Your task to perform on an android device: Go to calendar. Show me events next week Image 0: 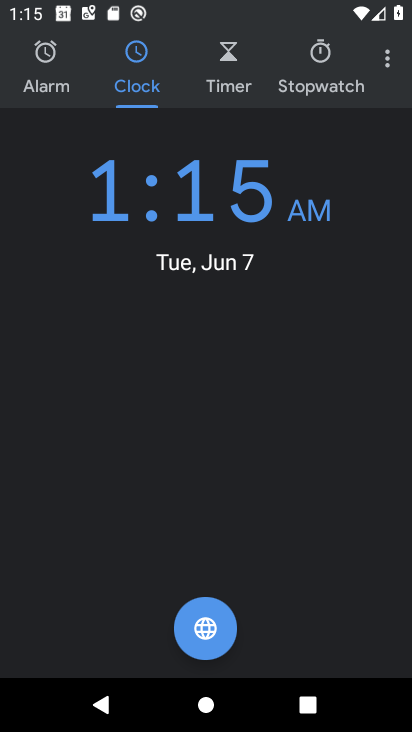
Step 0: press home button
Your task to perform on an android device: Go to calendar. Show me events next week Image 1: 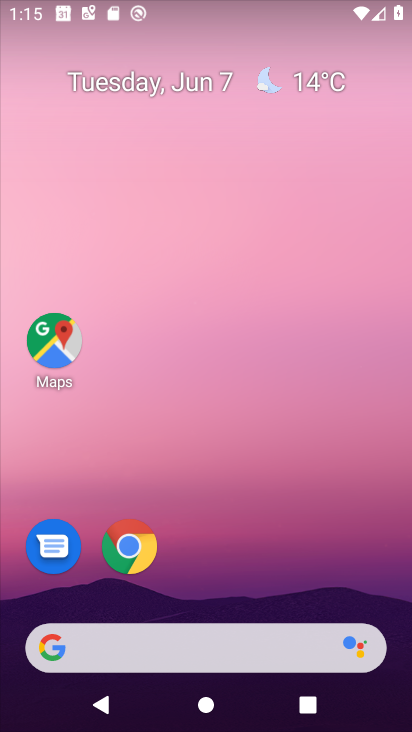
Step 1: drag from (291, 599) to (257, 160)
Your task to perform on an android device: Go to calendar. Show me events next week Image 2: 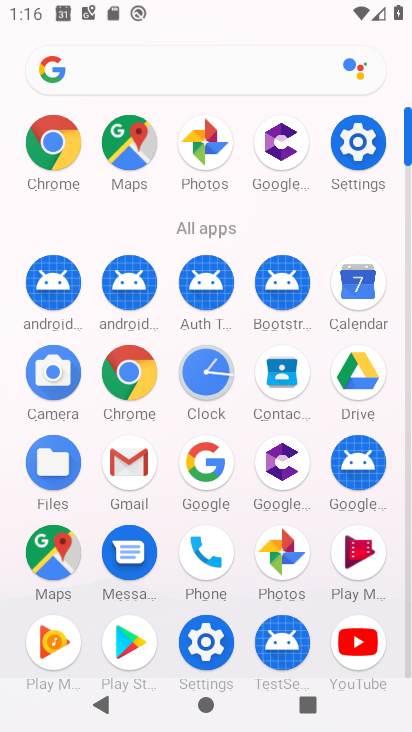
Step 2: click (345, 292)
Your task to perform on an android device: Go to calendar. Show me events next week Image 3: 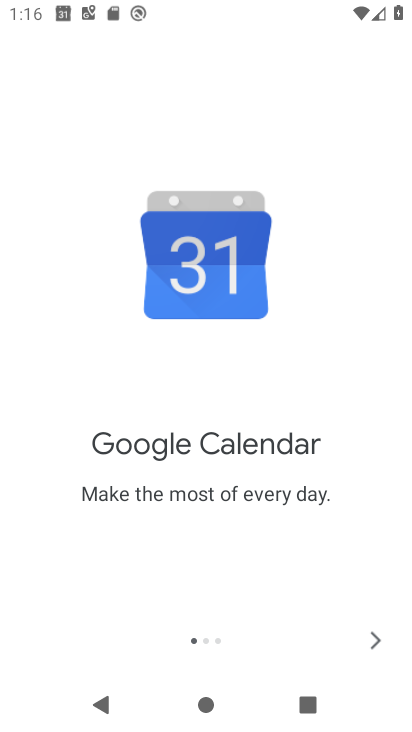
Step 3: click (378, 635)
Your task to perform on an android device: Go to calendar. Show me events next week Image 4: 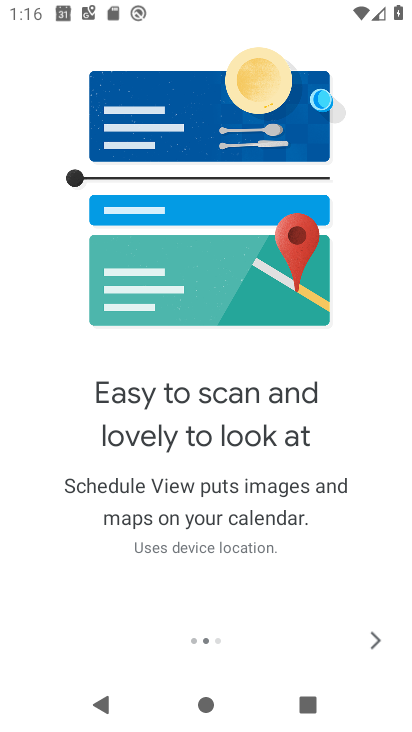
Step 4: click (378, 635)
Your task to perform on an android device: Go to calendar. Show me events next week Image 5: 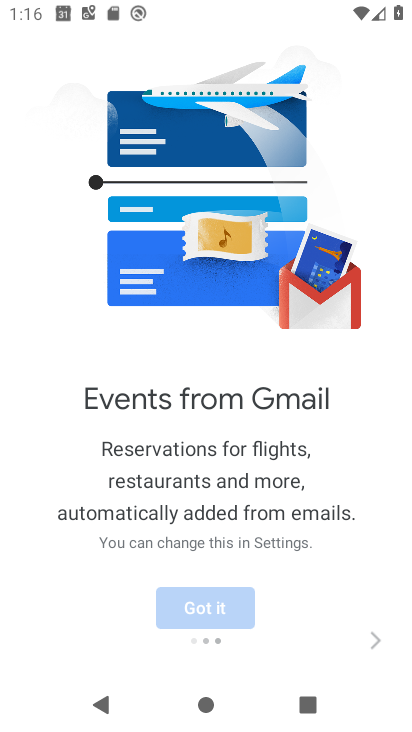
Step 5: click (378, 635)
Your task to perform on an android device: Go to calendar. Show me events next week Image 6: 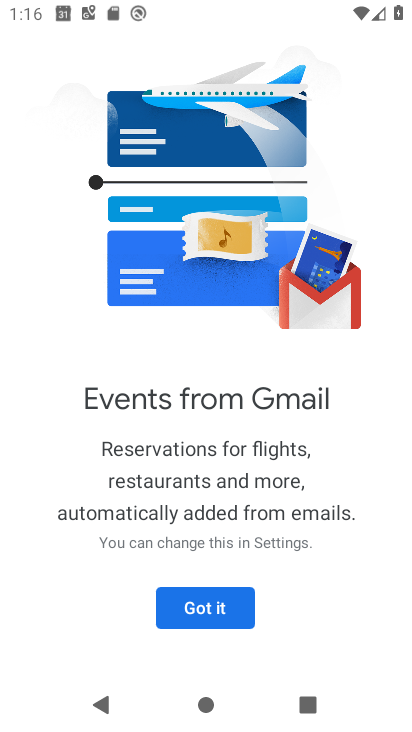
Step 6: click (228, 613)
Your task to perform on an android device: Go to calendar. Show me events next week Image 7: 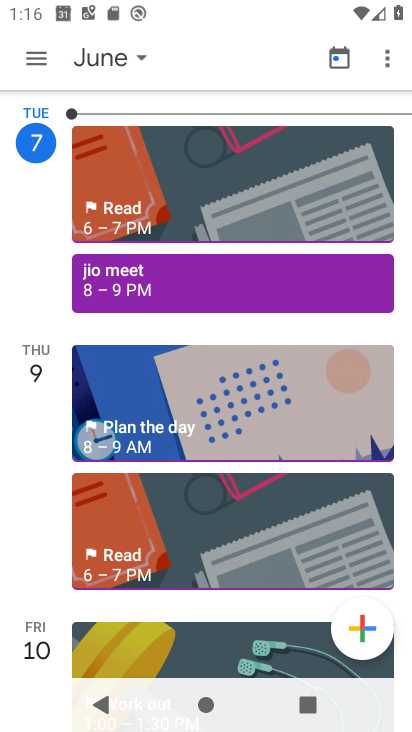
Step 7: click (31, 60)
Your task to perform on an android device: Go to calendar. Show me events next week Image 8: 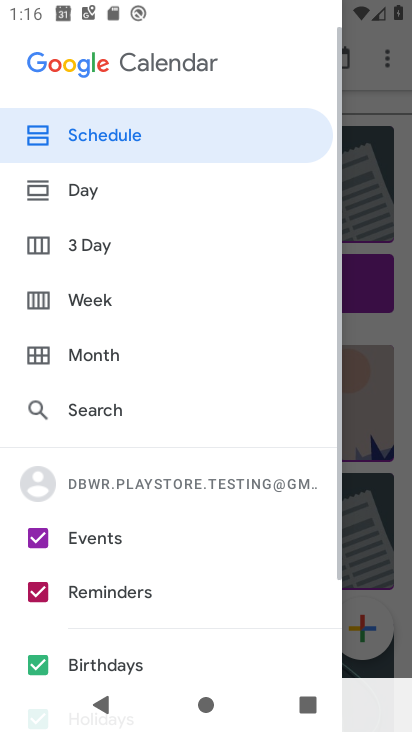
Step 8: click (387, 96)
Your task to perform on an android device: Go to calendar. Show me events next week Image 9: 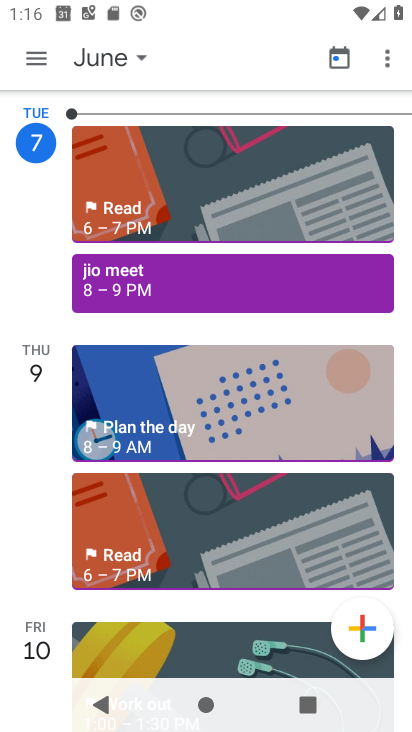
Step 9: task complete